Your task to perform on an android device: turn off location history Image 0: 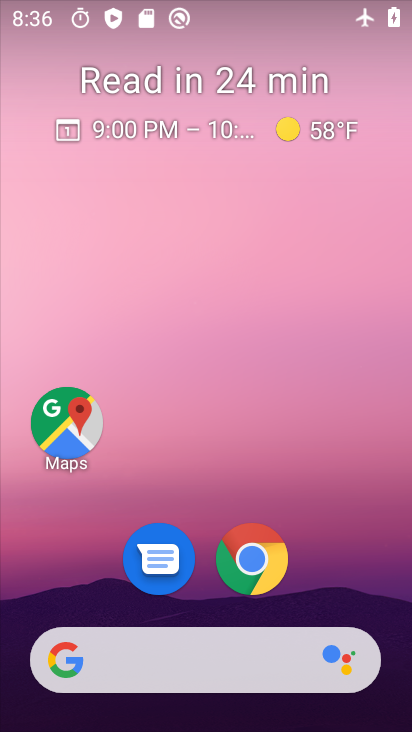
Step 0: drag from (334, 568) to (352, 119)
Your task to perform on an android device: turn off location history Image 1: 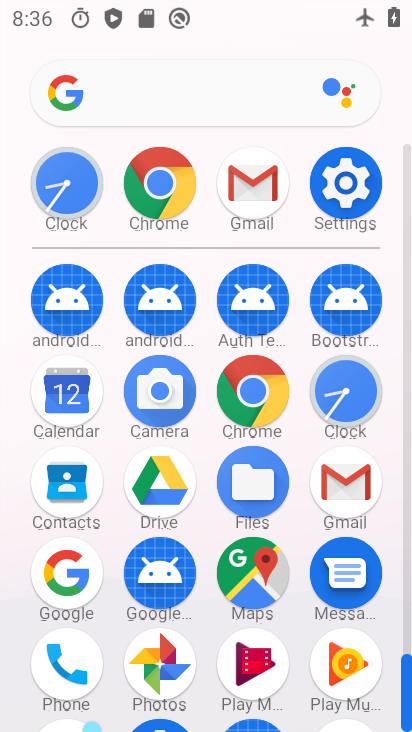
Step 1: click (343, 185)
Your task to perform on an android device: turn off location history Image 2: 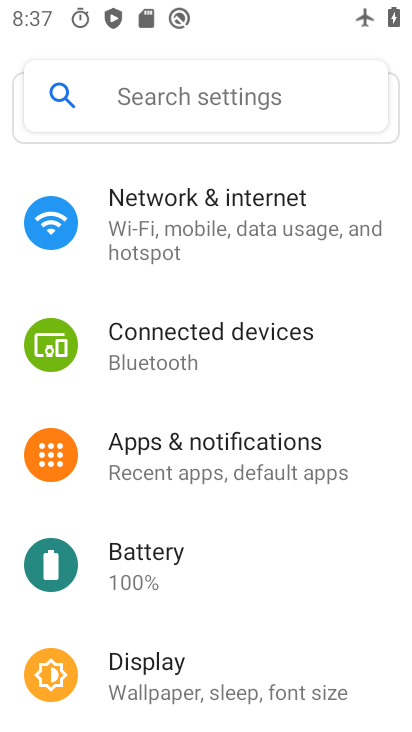
Step 2: drag from (152, 631) to (200, 297)
Your task to perform on an android device: turn off location history Image 3: 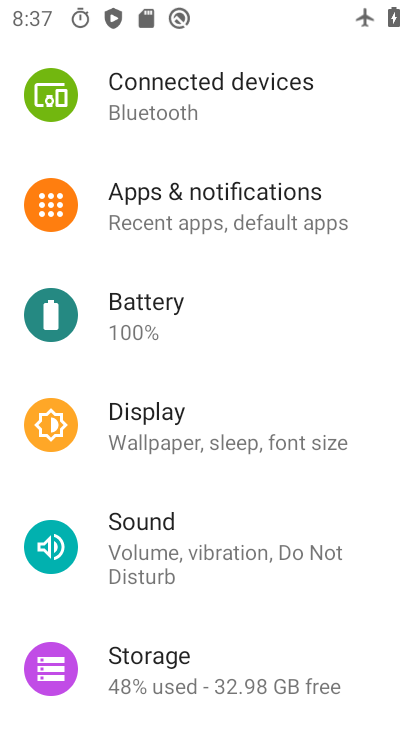
Step 3: drag from (144, 618) to (171, 294)
Your task to perform on an android device: turn off location history Image 4: 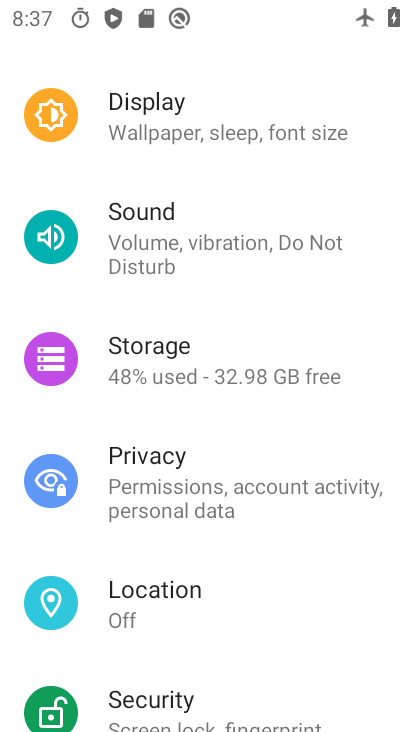
Step 4: click (161, 595)
Your task to perform on an android device: turn off location history Image 5: 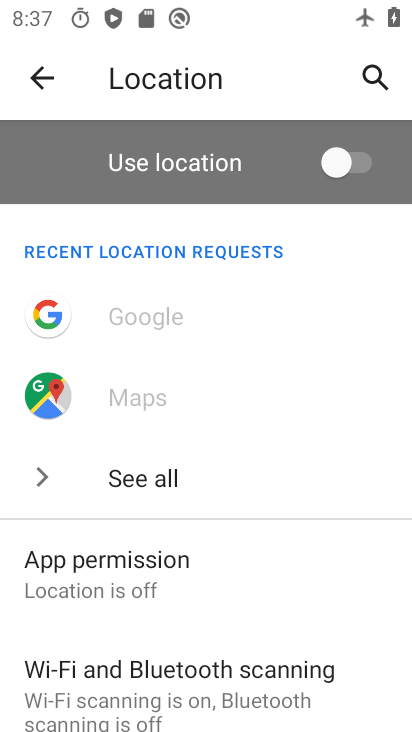
Step 5: drag from (149, 631) to (184, 409)
Your task to perform on an android device: turn off location history Image 6: 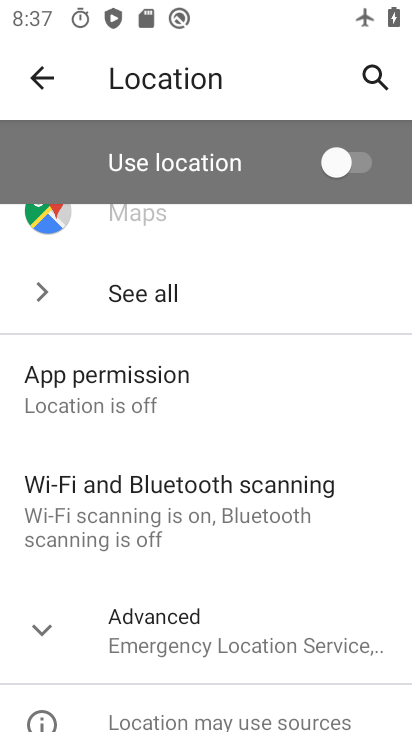
Step 6: drag from (129, 569) to (145, 348)
Your task to perform on an android device: turn off location history Image 7: 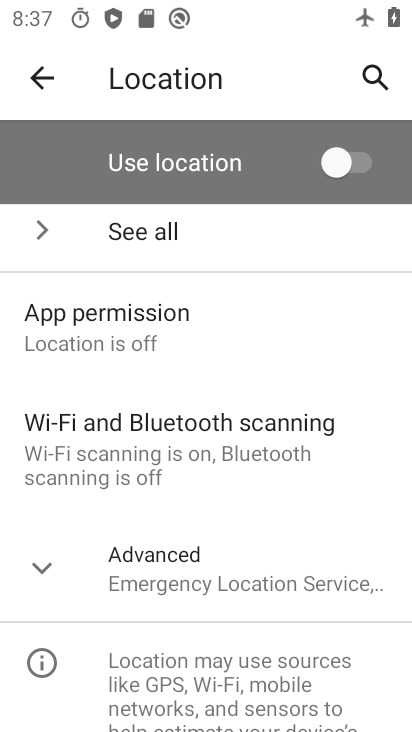
Step 7: drag from (138, 519) to (174, 290)
Your task to perform on an android device: turn off location history Image 8: 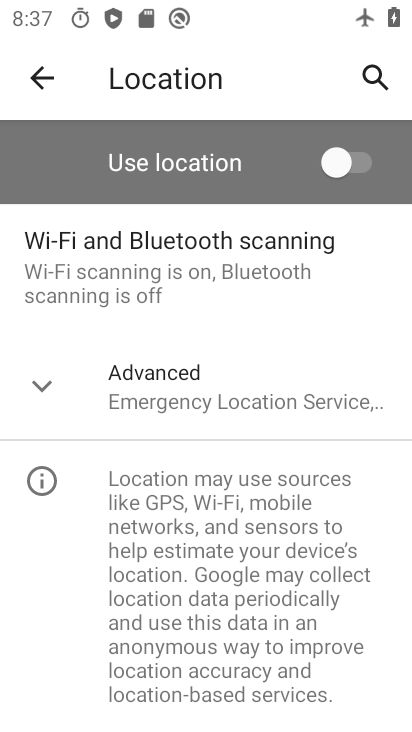
Step 8: drag from (135, 450) to (195, 184)
Your task to perform on an android device: turn off location history Image 9: 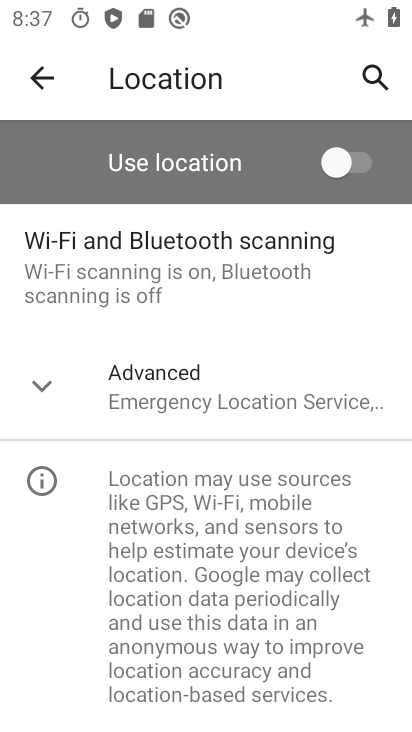
Step 9: drag from (66, 641) to (113, 299)
Your task to perform on an android device: turn off location history Image 10: 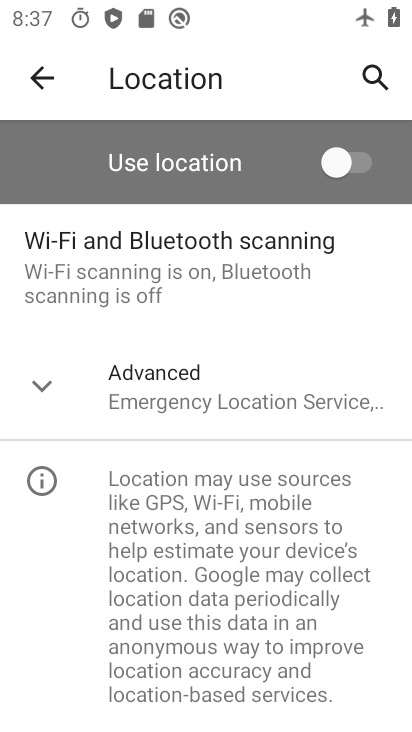
Step 10: click (155, 377)
Your task to perform on an android device: turn off location history Image 11: 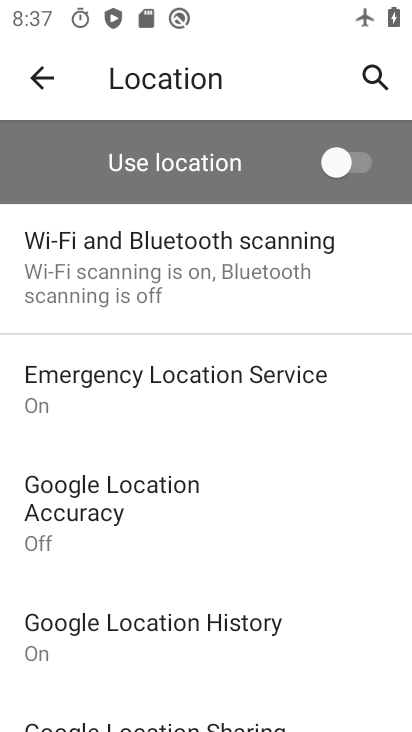
Step 11: click (128, 636)
Your task to perform on an android device: turn off location history Image 12: 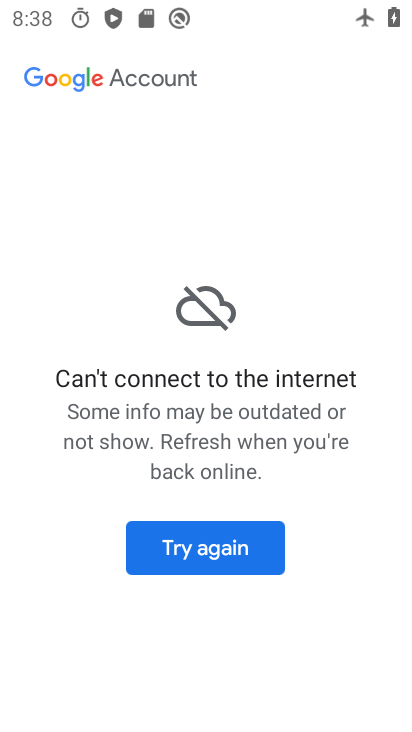
Step 12: task complete